Your task to perform on an android device: read, delete, or share a saved page in the chrome app Image 0: 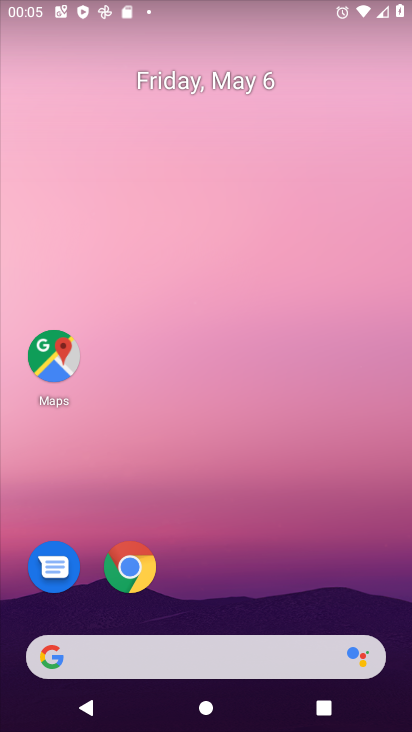
Step 0: click (139, 574)
Your task to perform on an android device: read, delete, or share a saved page in the chrome app Image 1: 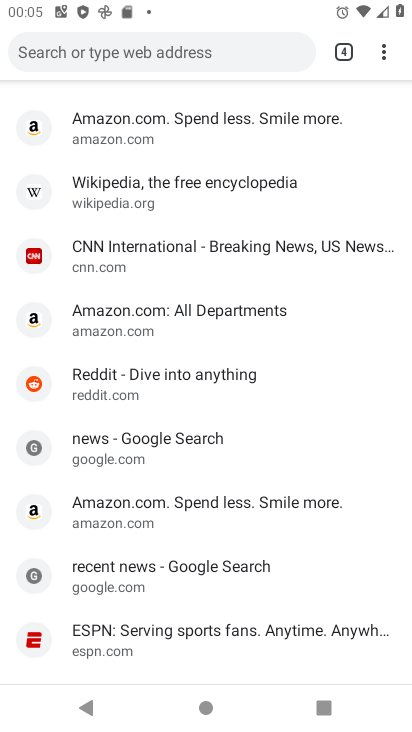
Step 1: drag from (385, 53) to (228, 343)
Your task to perform on an android device: read, delete, or share a saved page in the chrome app Image 2: 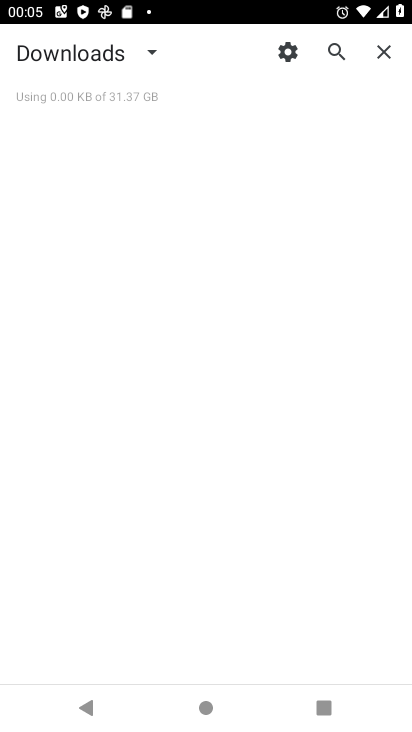
Step 2: click (151, 49)
Your task to perform on an android device: read, delete, or share a saved page in the chrome app Image 3: 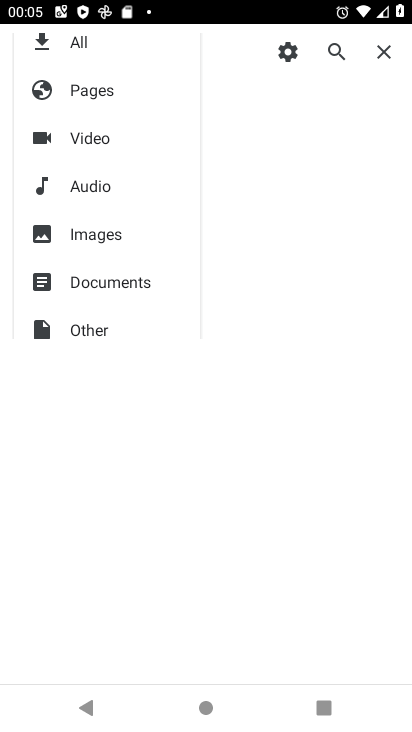
Step 3: click (150, 53)
Your task to perform on an android device: read, delete, or share a saved page in the chrome app Image 4: 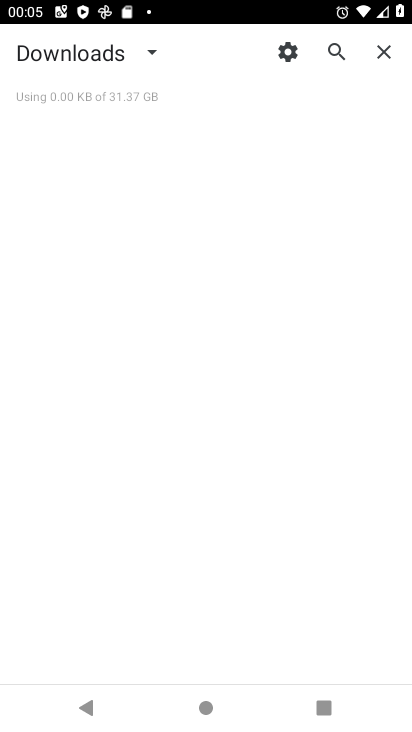
Step 4: click (145, 58)
Your task to perform on an android device: read, delete, or share a saved page in the chrome app Image 5: 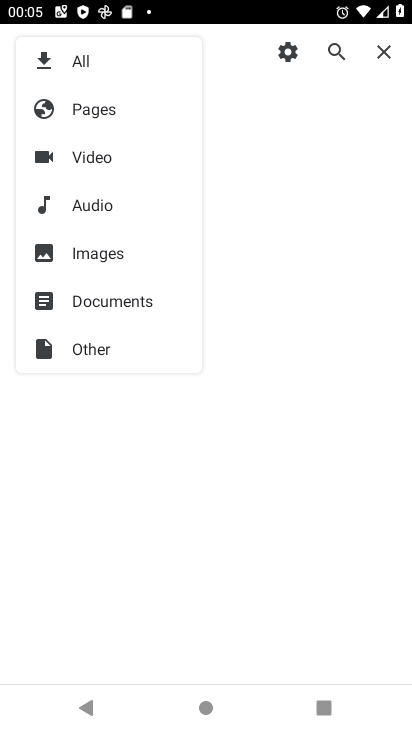
Step 5: click (82, 109)
Your task to perform on an android device: read, delete, or share a saved page in the chrome app Image 6: 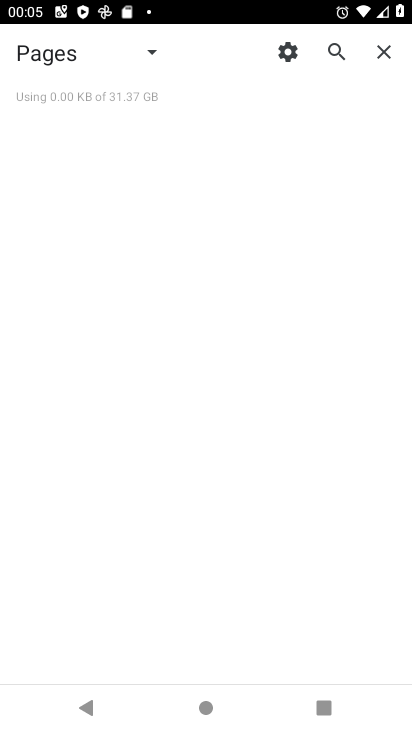
Step 6: task complete